Your task to perform on an android device: turn on bluetooth scan Image 0: 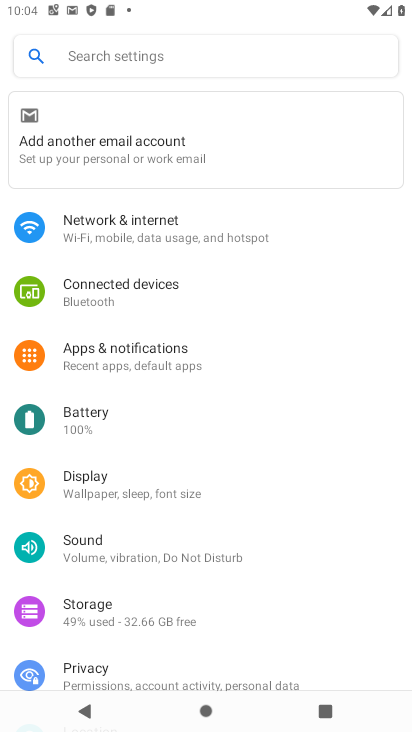
Step 0: drag from (162, 535) to (143, 93)
Your task to perform on an android device: turn on bluetooth scan Image 1: 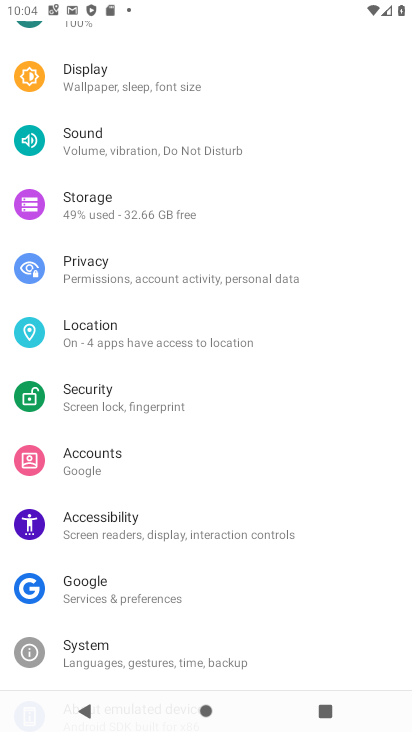
Step 1: click (100, 328)
Your task to perform on an android device: turn on bluetooth scan Image 2: 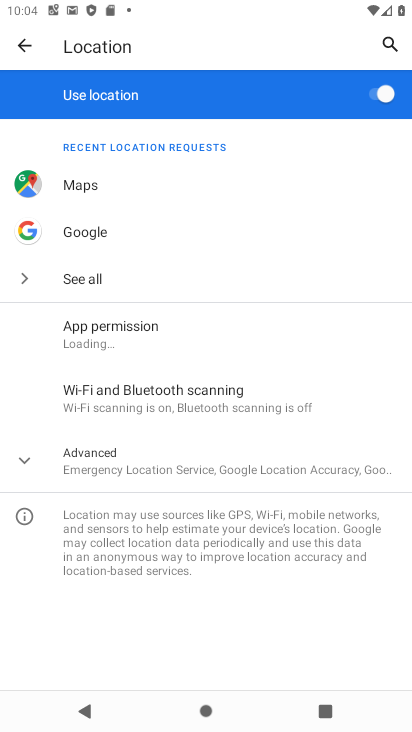
Step 2: click (144, 448)
Your task to perform on an android device: turn on bluetooth scan Image 3: 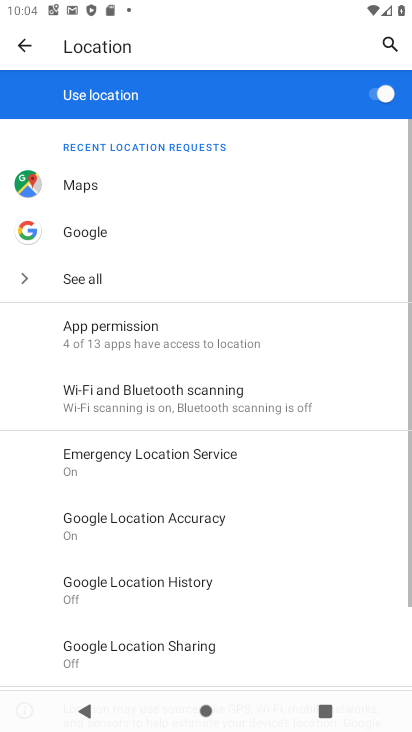
Step 3: click (144, 399)
Your task to perform on an android device: turn on bluetooth scan Image 4: 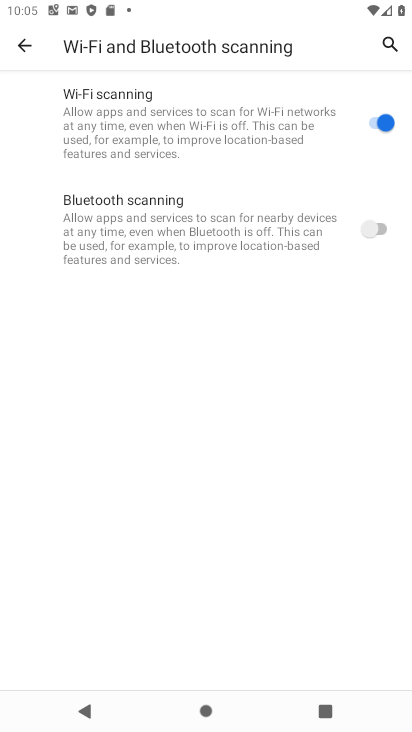
Step 4: click (361, 231)
Your task to perform on an android device: turn on bluetooth scan Image 5: 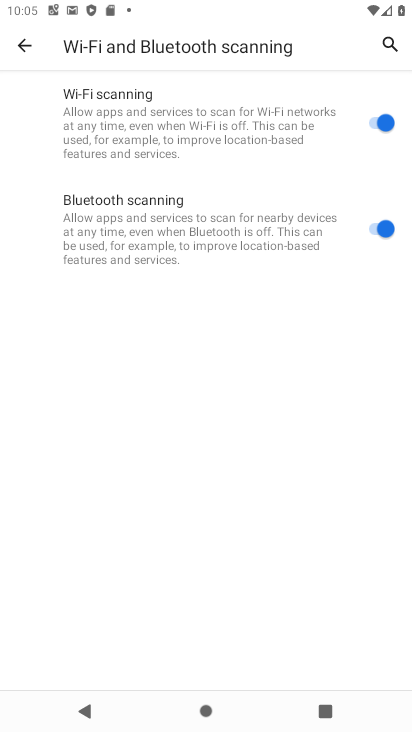
Step 5: task complete